Your task to perform on an android device: change text size in settings app Image 0: 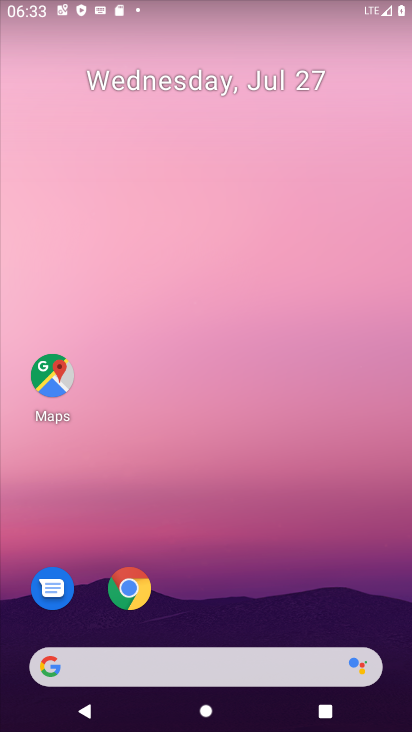
Step 0: drag from (145, 652) to (181, 17)
Your task to perform on an android device: change text size in settings app Image 1: 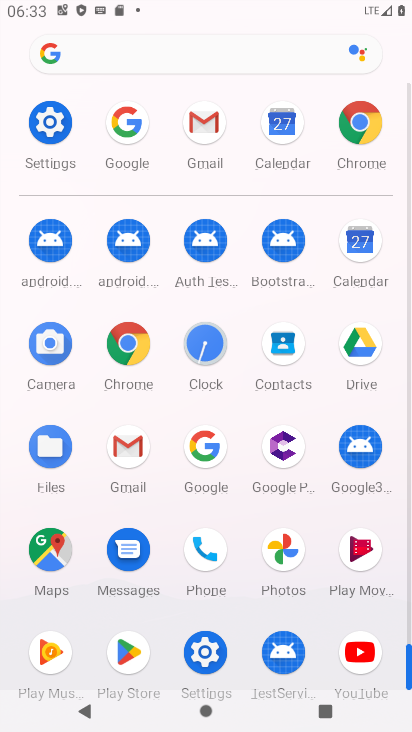
Step 1: click (43, 124)
Your task to perform on an android device: change text size in settings app Image 2: 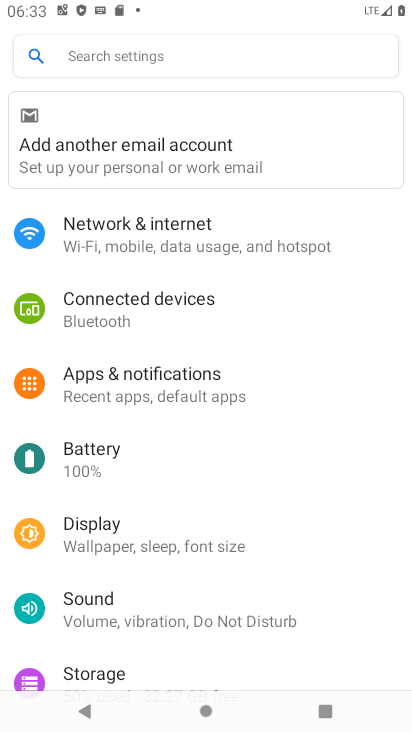
Step 2: drag from (168, 420) to (192, 15)
Your task to perform on an android device: change text size in settings app Image 3: 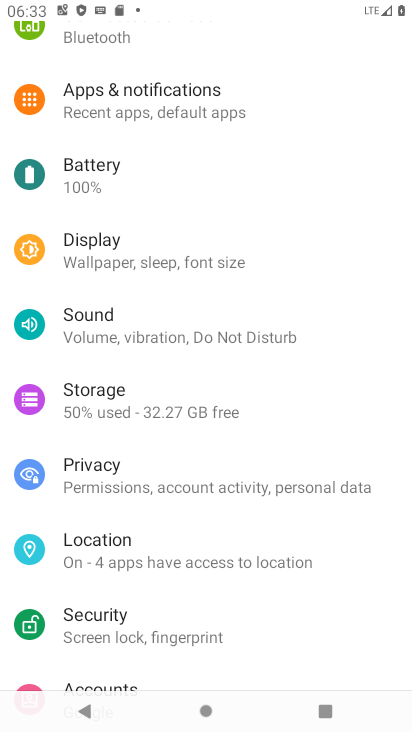
Step 3: drag from (159, 609) to (201, 96)
Your task to perform on an android device: change text size in settings app Image 4: 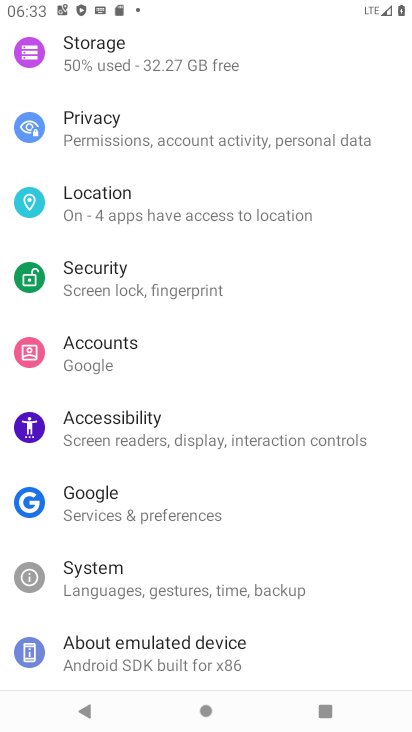
Step 4: drag from (136, 613) to (170, 291)
Your task to perform on an android device: change text size in settings app Image 5: 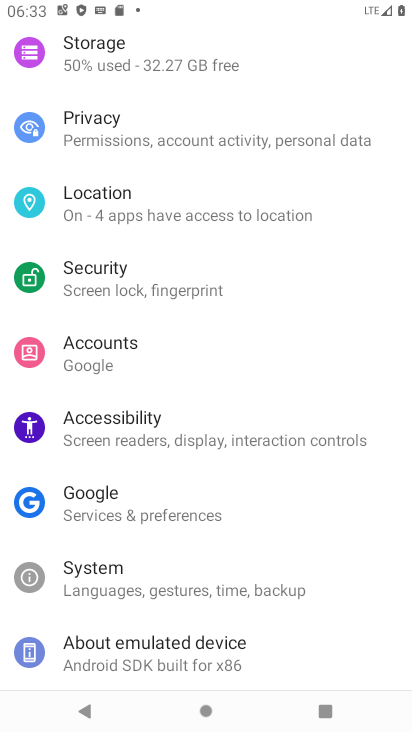
Step 5: click (183, 430)
Your task to perform on an android device: change text size in settings app Image 6: 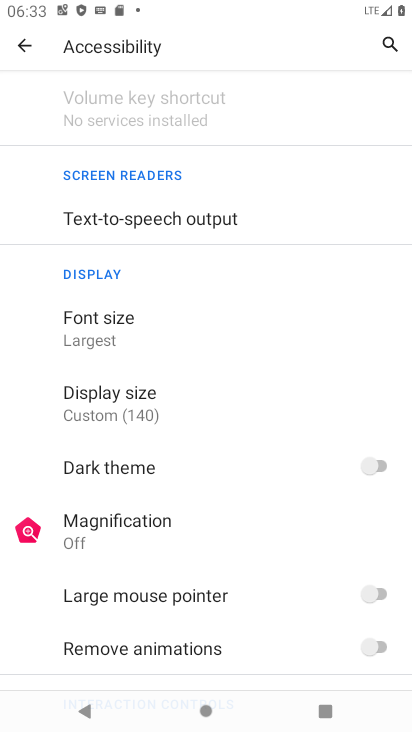
Step 6: click (120, 338)
Your task to perform on an android device: change text size in settings app Image 7: 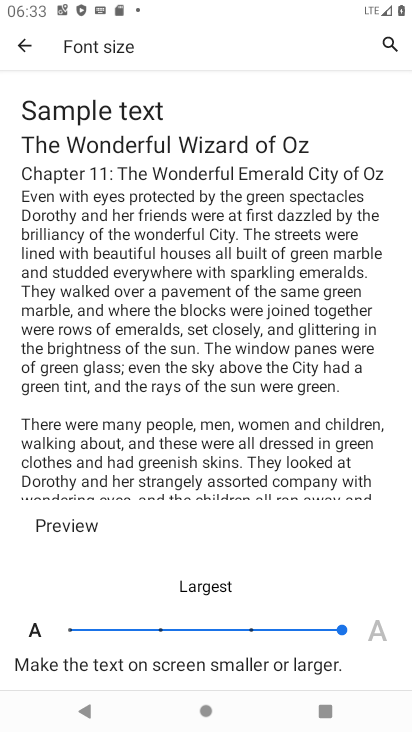
Step 7: click (250, 629)
Your task to perform on an android device: change text size in settings app Image 8: 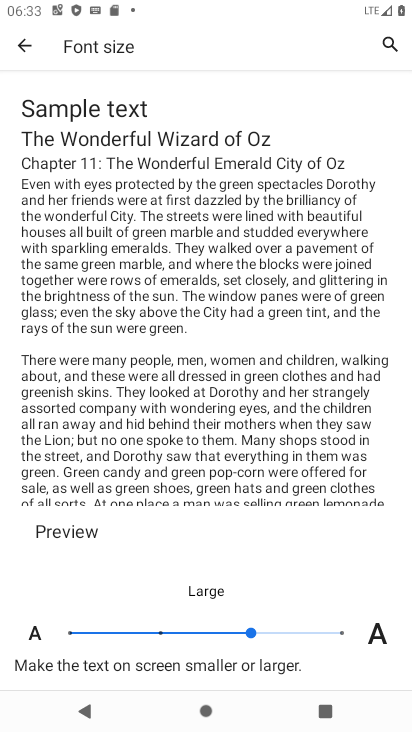
Step 8: task complete